Your task to perform on an android device: all mails in gmail Image 0: 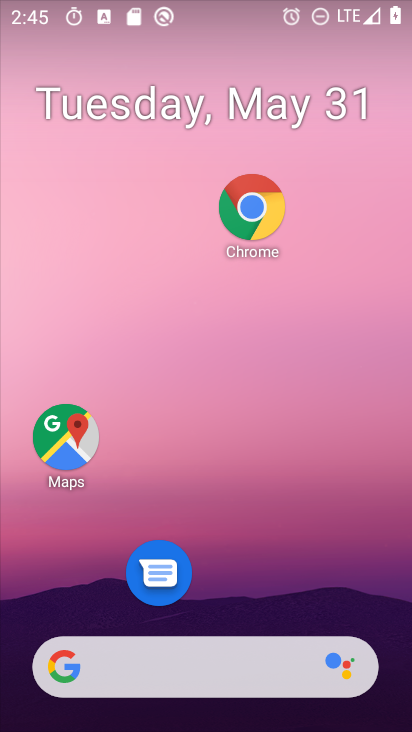
Step 0: drag from (216, 601) to (255, 9)
Your task to perform on an android device: all mails in gmail Image 1: 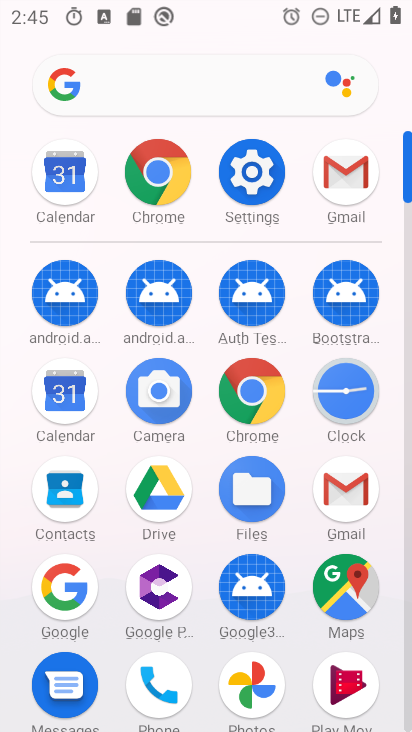
Step 1: click (350, 503)
Your task to perform on an android device: all mails in gmail Image 2: 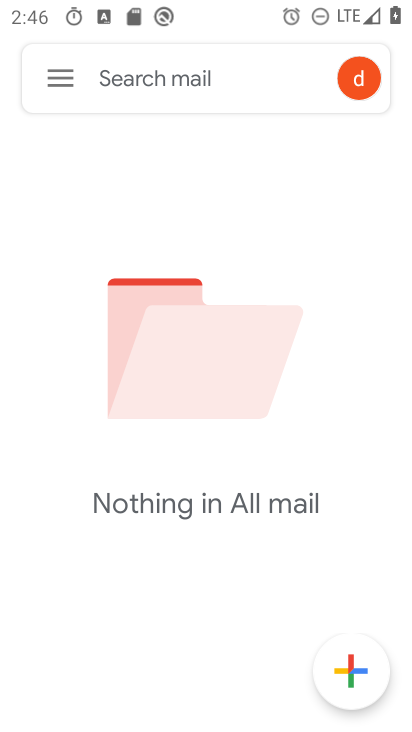
Step 2: task complete